Your task to perform on an android device: all mails in gmail Image 0: 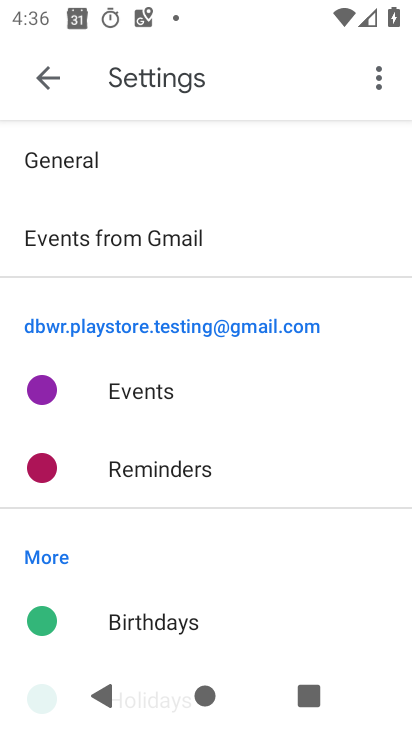
Step 0: press back button
Your task to perform on an android device: all mails in gmail Image 1: 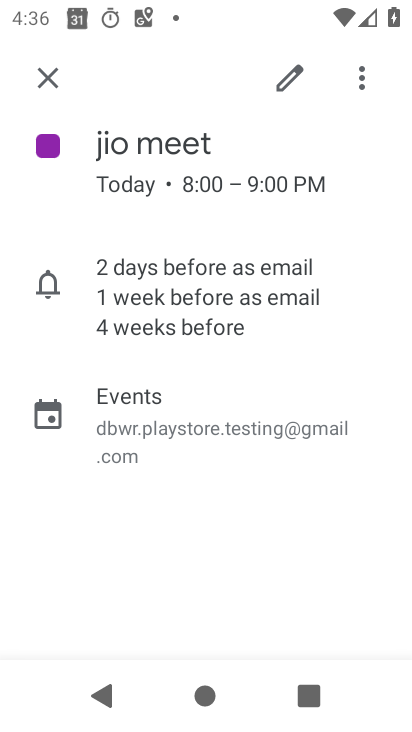
Step 1: press back button
Your task to perform on an android device: all mails in gmail Image 2: 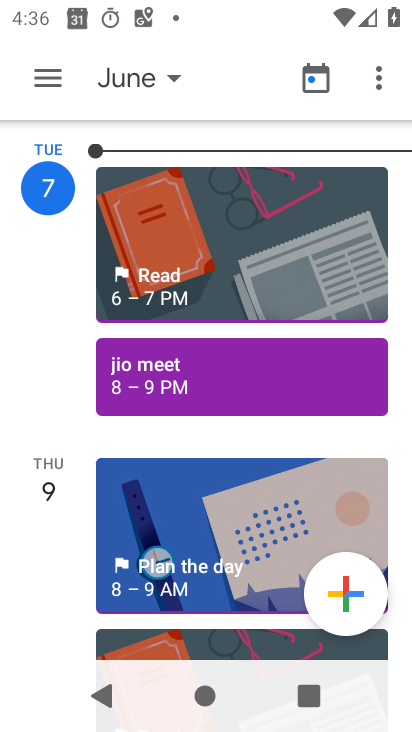
Step 2: press back button
Your task to perform on an android device: all mails in gmail Image 3: 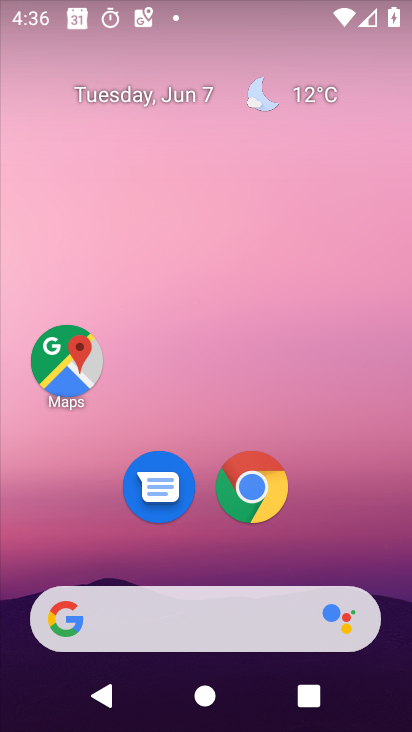
Step 3: drag from (213, 577) to (285, 44)
Your task to perform on an android device: all mails in gmail Image 4: 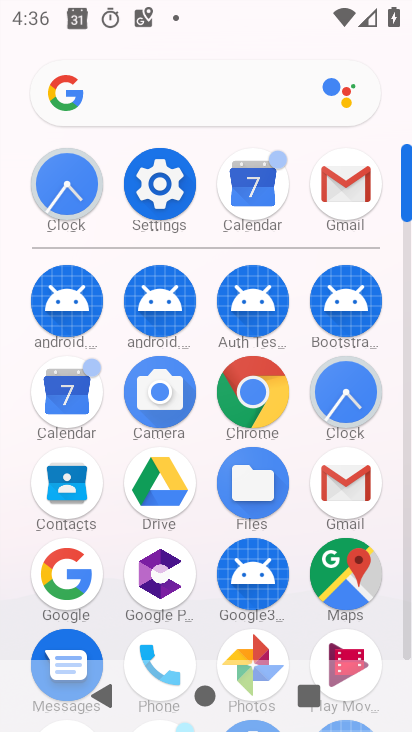
Step 4: click (341, 192)
Your task to perform on an android device: all mails in gmail Image 5: 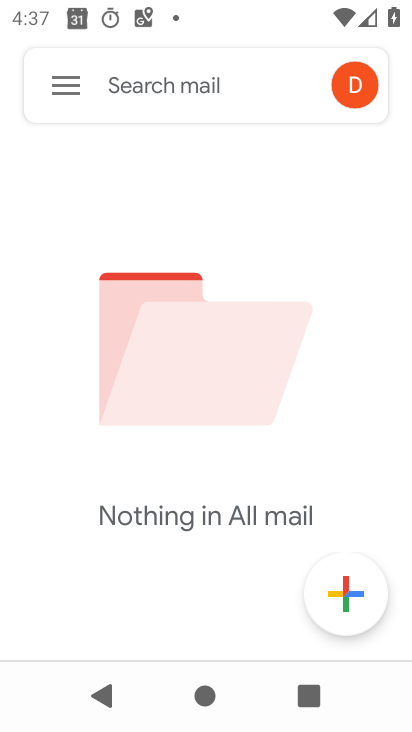
Step 5: task complete